Your task to perform on an android device: Open privacy settings Image 0: 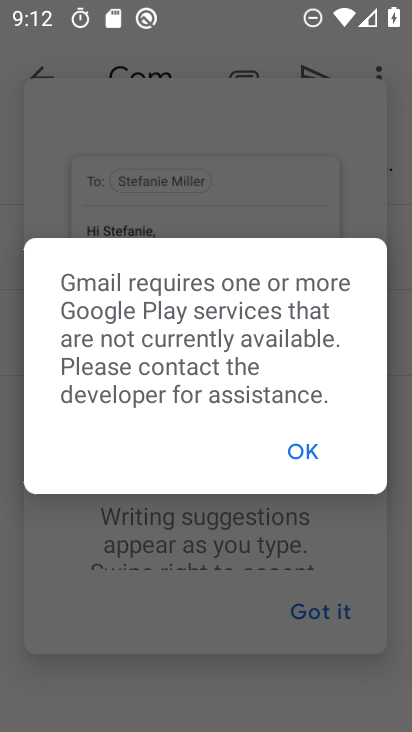
Step 0: press home button
Your task to perform on an android device: Open privacy settings Image 1: 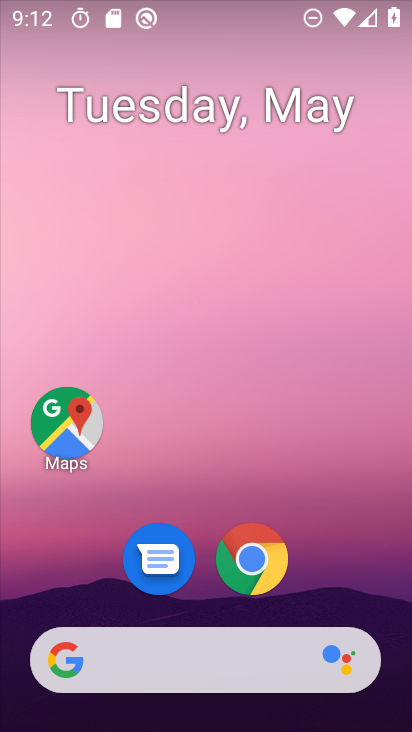
Step 1: drag from (396, 658) to (271, 68)
Your task to perform on an android device: Open privacy settings Image 2: 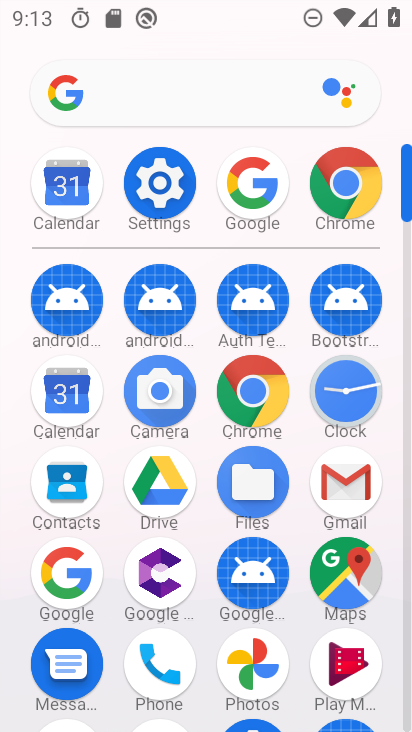
Step 2: click (148, 188)
Your task to perform on an android device: Open privacy settings Image 3: 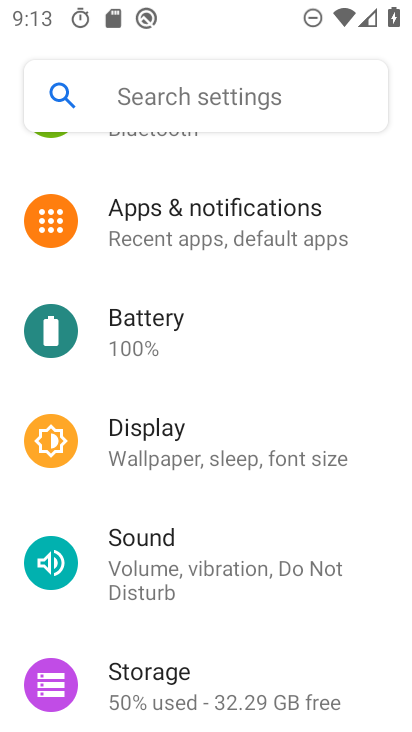
Step 3: drag from (167, 663) to (193, 178)
Your task to perform on an android device: Open privacy settings Image 4: 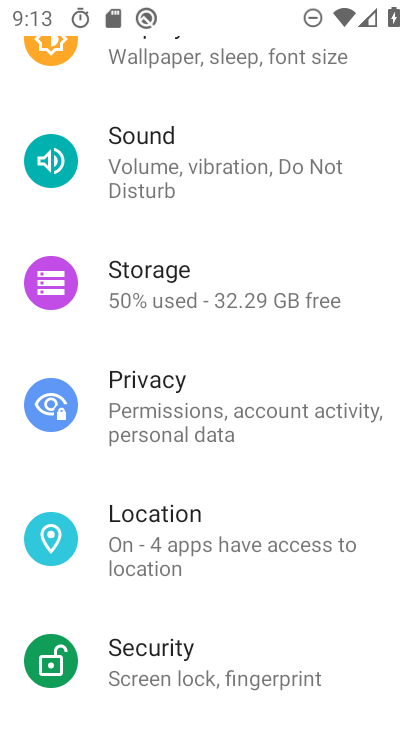
Step 4: click (182, 402)
Your task to perform on an android device: Open privacy settings Image 5: 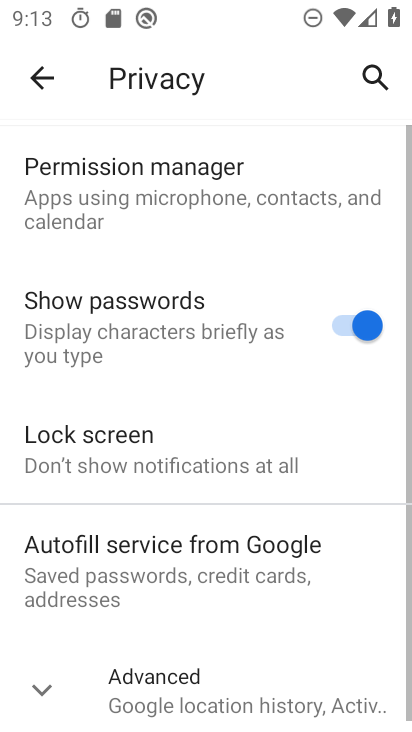
Step 5: task complete